Your task to perform on an android device: turn on showing notifications on the lock screen Image 0: 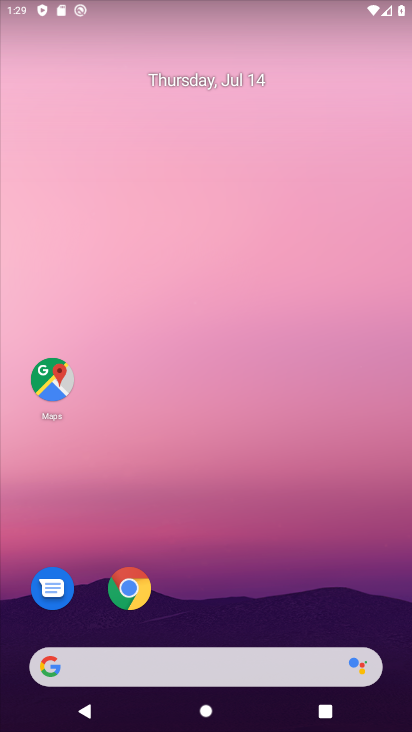
Step 0: drag from (221, 427) to (241, 2)
Your task to perform on an android device: turn on showing notifications on the lock screen Image 1: 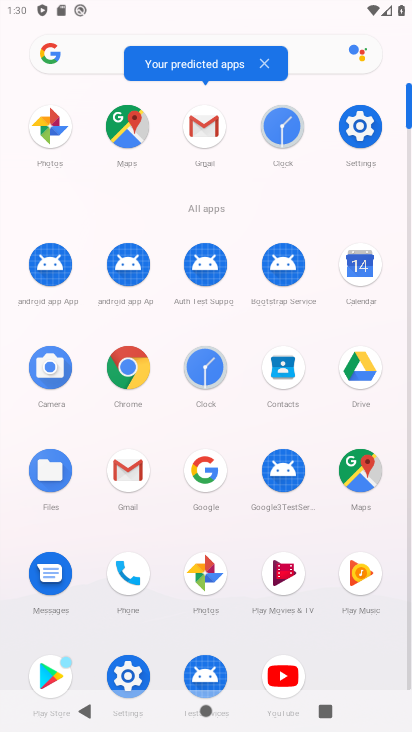
Step 1: click (131, 675)
Your task to perform on an android device: turn on showing notifications on the lock screen Image 2: 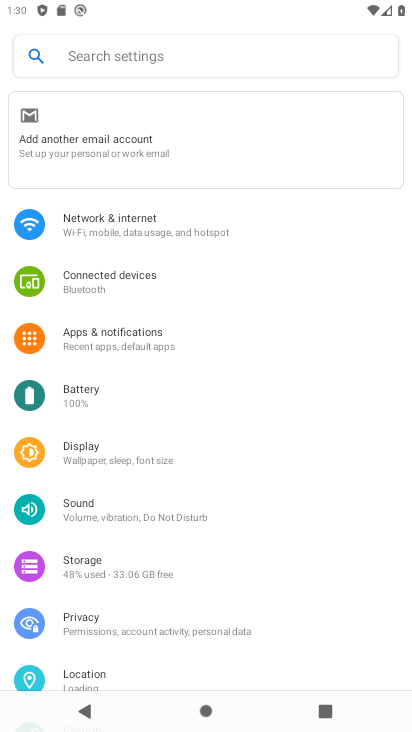
Step 2: click (164, 349)
Your task to perform on an android device: turn on showing notifications on the lock screen Image 3: 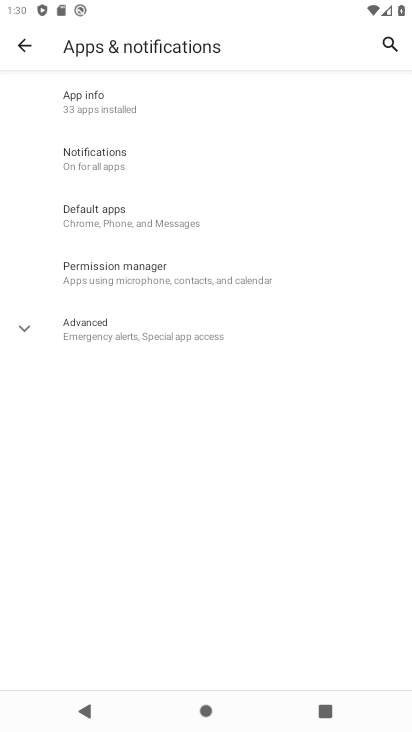
Step 3: click (119, 152)
Your task to perform on an android device: turn on showing notifications on the lock screen Image 4: 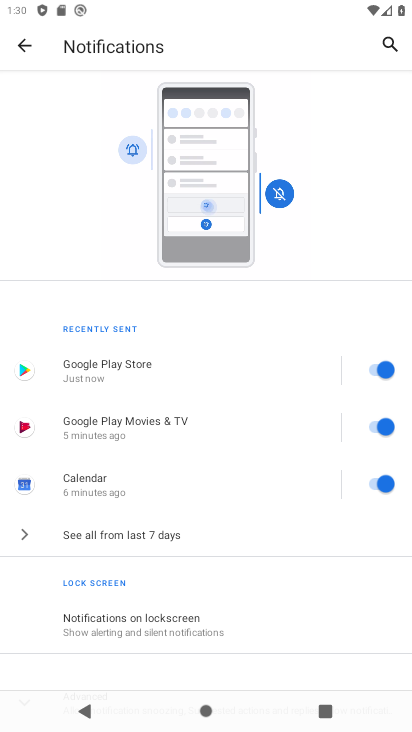
Step 4: click (169, 624)
Your task to perform on an android device: turn on showing notifications on the lock screen Image 5: 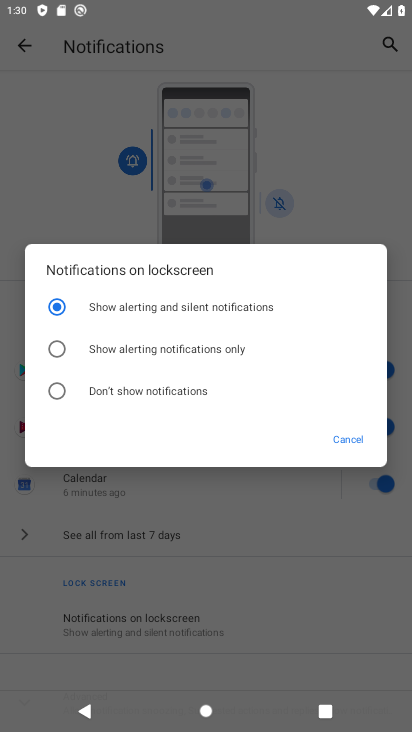
Step 5: task complete